Your task to perform on an android device: stop showing notifications on the lock screen Image 0: 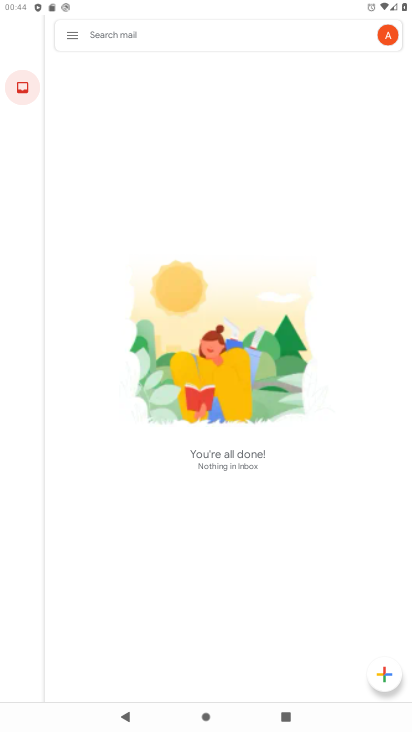
Step 0: press home button
Your task to perform on an android device: stop showing notifications on the lock screen Image 1: 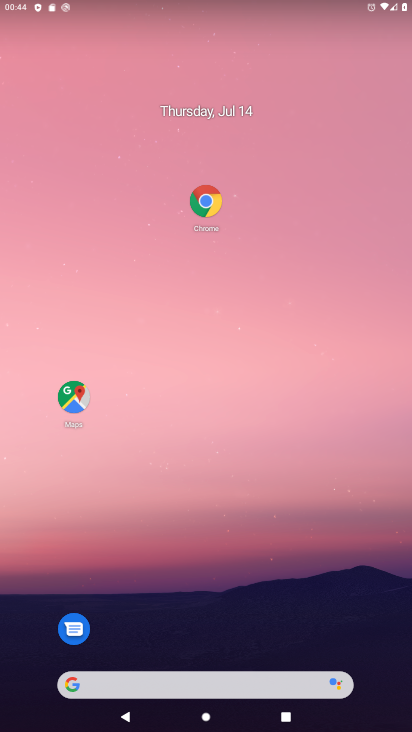
Step 1: drag from (225, 639) to (126, 160)
Your task to perform on an android device: stop showing notifications on the lock screen Image 2: 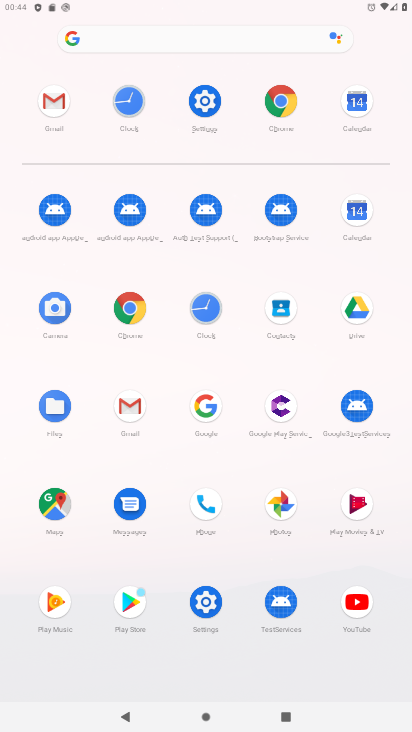
Step 2: click (213, 101)
Your task to perform on an android device: stop showing notifications on the lock screen Image 3: 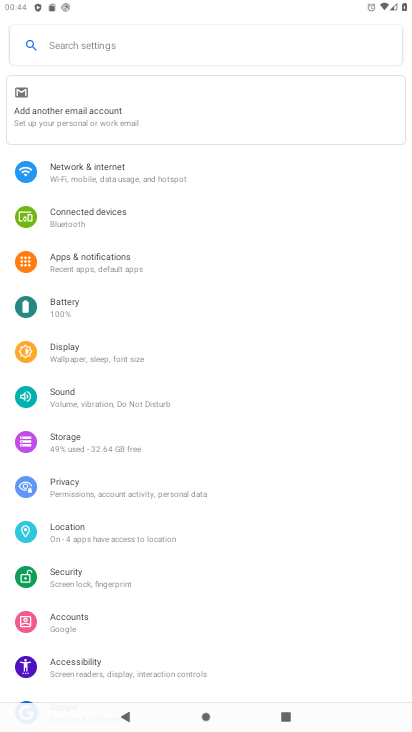
Step 3: click (213, 101)
Your task to perform on an android device: stop showing notifications on the lock screen Image 4: 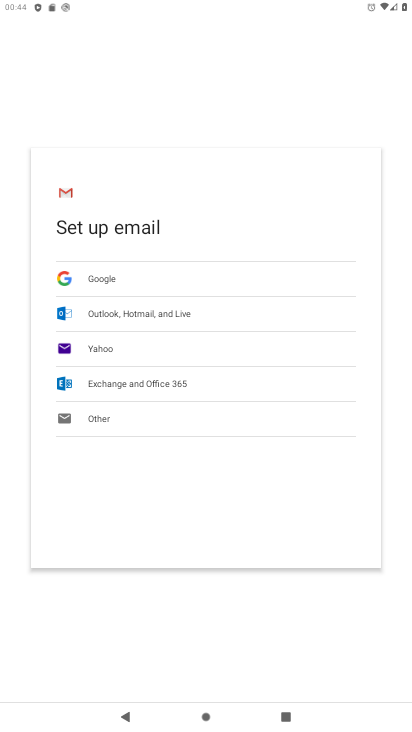
Step 4: task complete